Your task to perform on an android device: Open Google Maps Image 0: 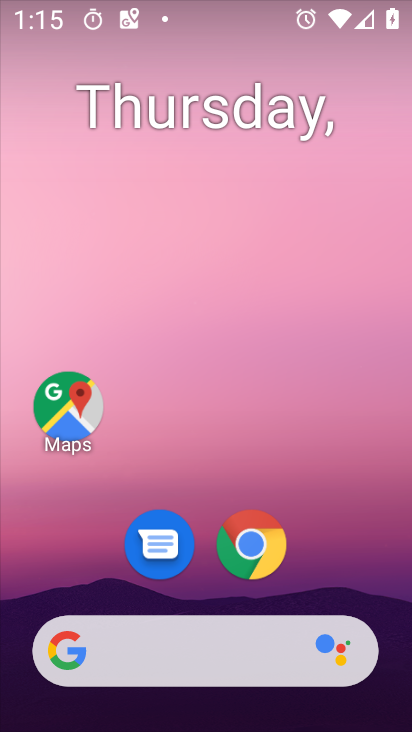
Step 0: press home button
Your task to perform on an android device: Open Google Maps Image 1: 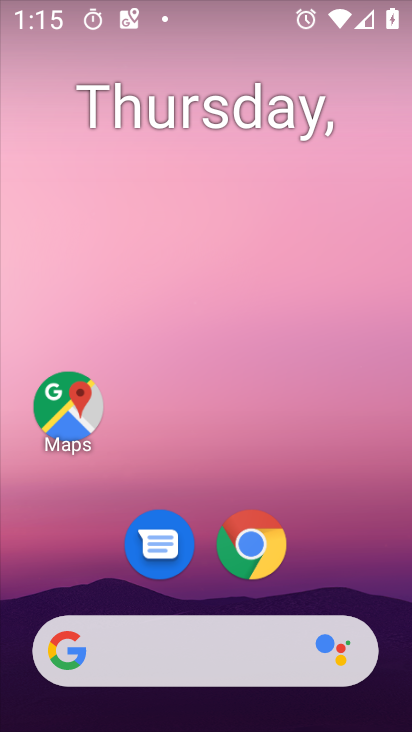
Step 1: click (53, 404)
Your task to perform on an android device: Open Google Maps Image 2: 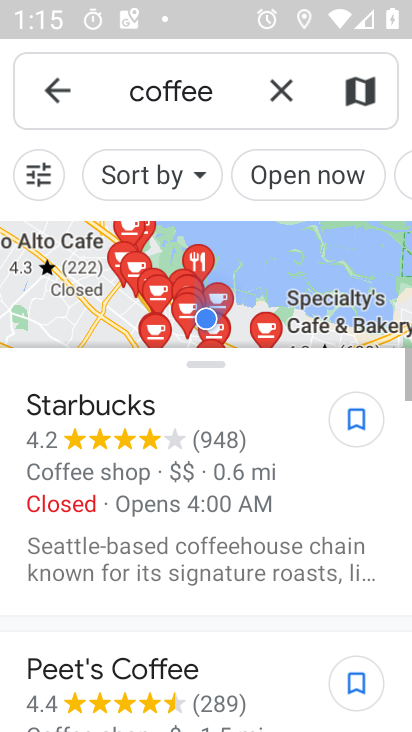
Step 2: click (282, 95)
Your task to perform on an android device: Open Google Maps Image 3: 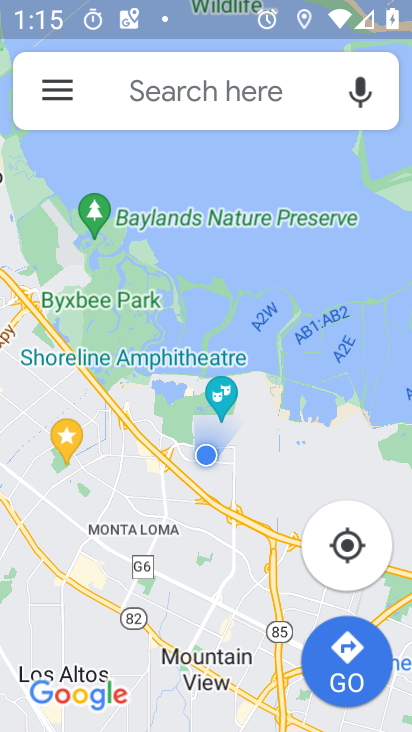
Step 3: task complete